Your task to perform on an android device: Open the map Image 0: 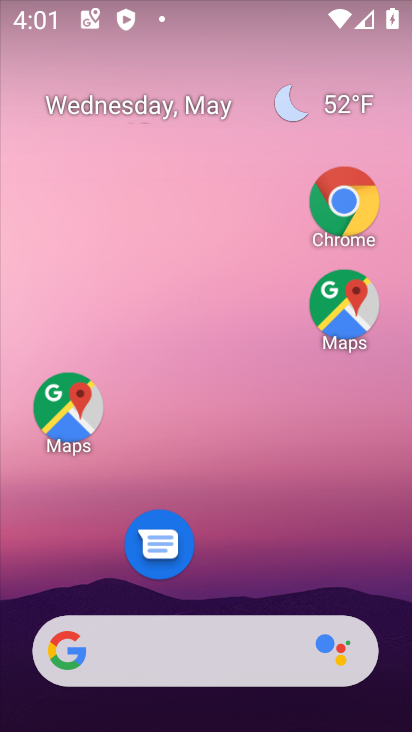
Step 0: click (68, 414)
Your task to perform on an android device: Open the map Image 1: 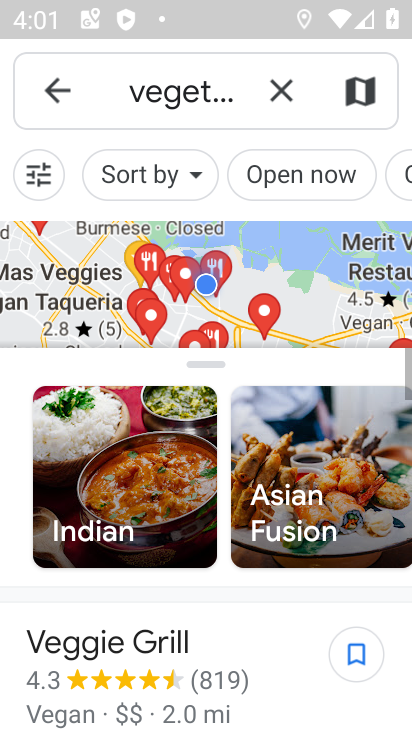
Step 1: task complete